Your task to perform on an android device: Open location settings Image 0: 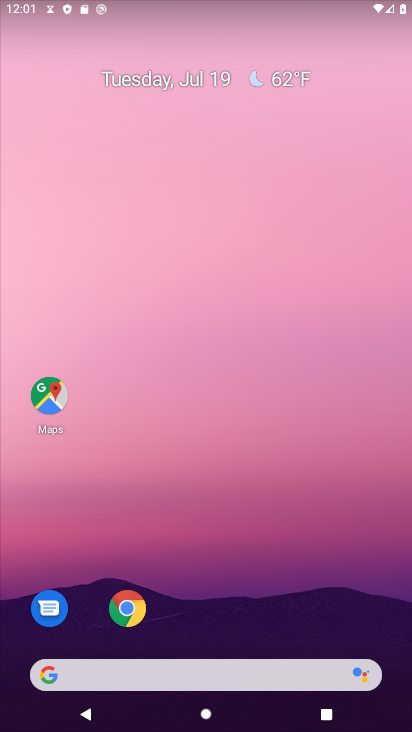
Step 0: drag from (245, 625) to (202, 169)
Your task to perform on an android device: Open location settings Image 1: 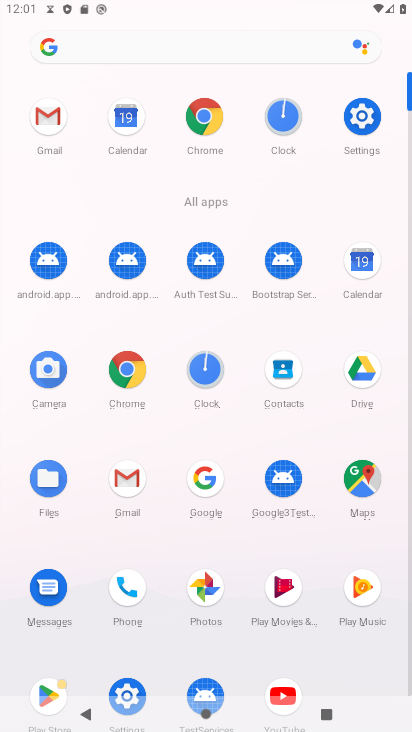
Step 1: click (367, 119)
Your task to perform on an android device: Open location settings Image 2: 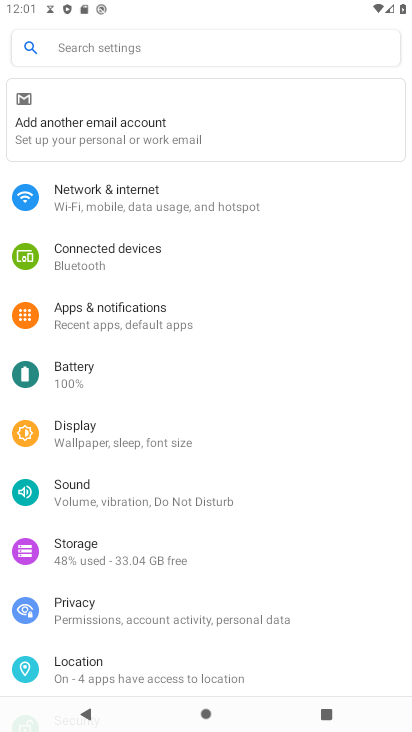
Step 2: click (182, 671)
Your task to perform on an android device: Open location settings Image 3: 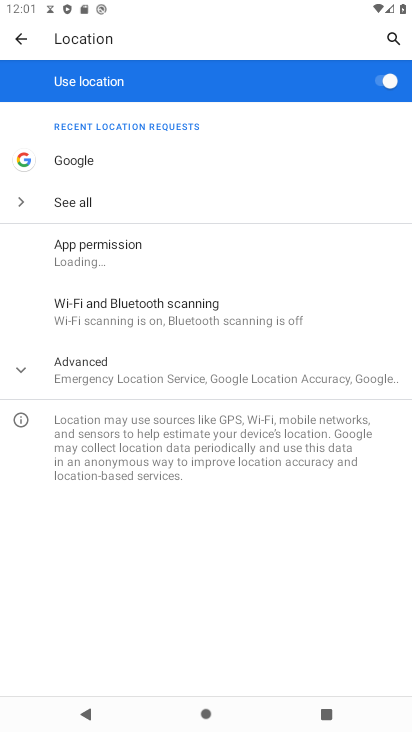
Step 3: task complete